Your task to perform on an android device: Go to notification settings Image 0: 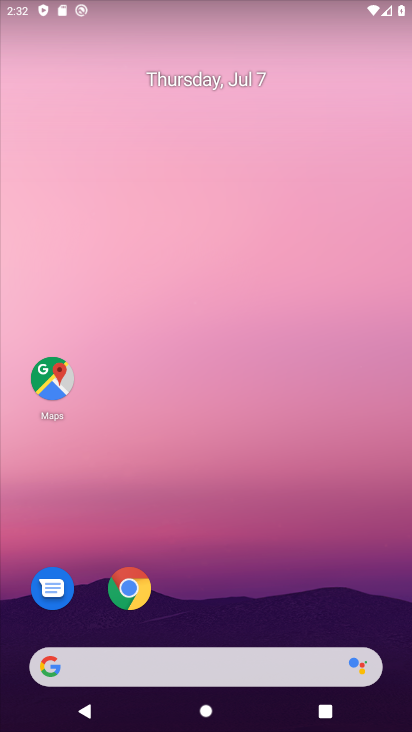
Step 0: drag from (240, 609) to (266, 93)
Your task to perform on an android device: Go to notification settings Image 1: 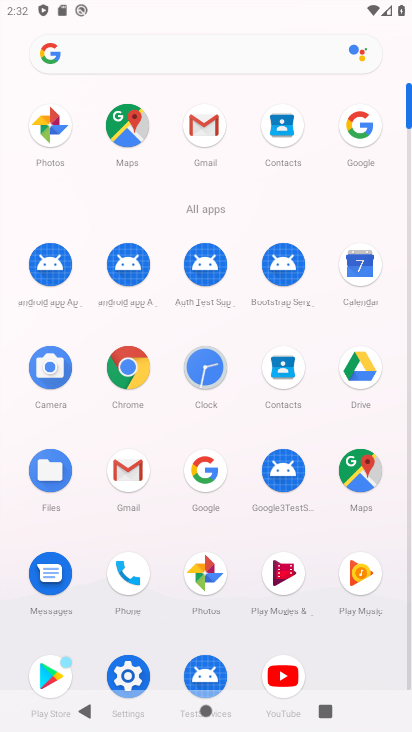
Step 1: drag from (168, 445) to (170, 271)
Your task to perform on an android device: Go to notification settings Image 2: 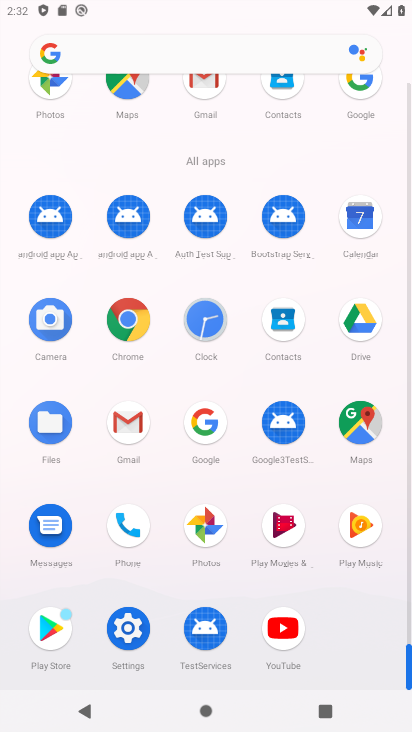
Step 2: click (131, 628)
Your task to perform on an android device: Go to notification settings Image 3: 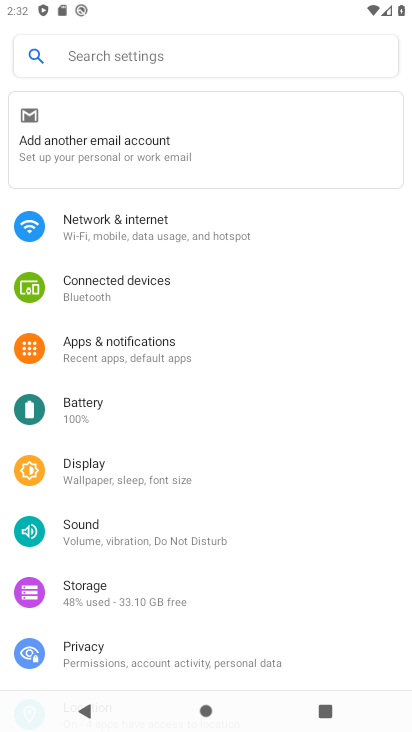
Step 3: click (125, 342)
Your task to perform on an android device: Go to notification settings Image 4: 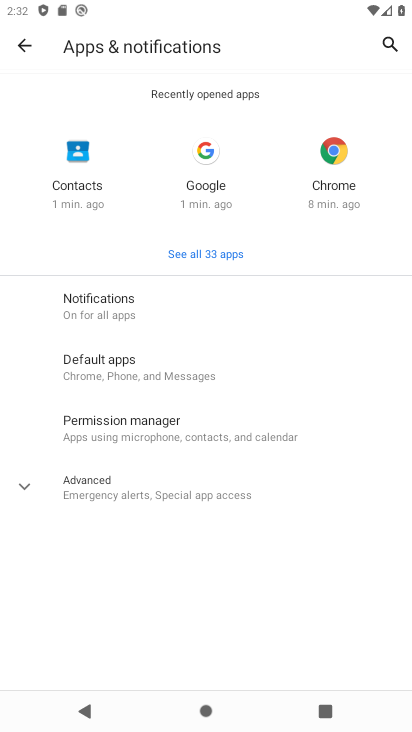
Step 4: click (105, 294)
Your task to perform on an android device: Go to notification settings Image 5: 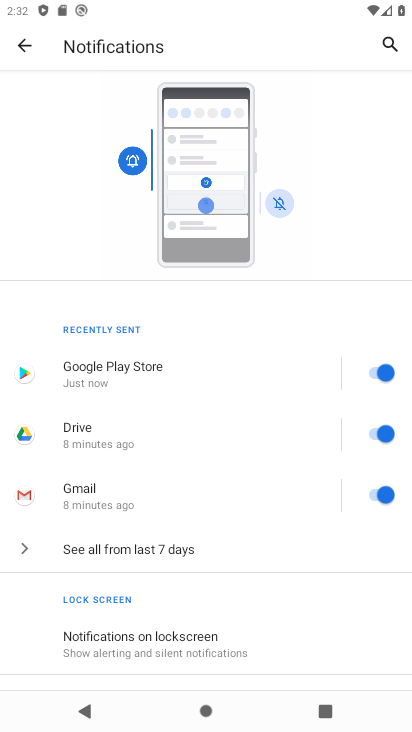
Step 5: task complete